Your task to perform on an android device: Add "asus rog" to the cart on amazon.com, then select checkout. Image 0: 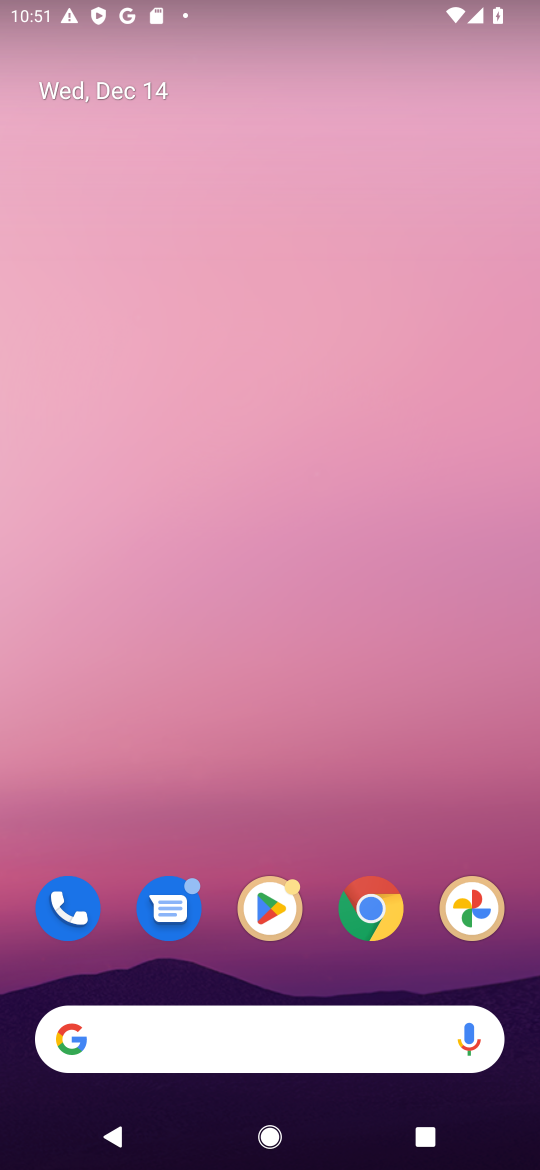
Step 0: click (392, 912)
Your task to perform on an android device: Add "asus rog" to the cart on amazon.com, then select checkout. Image 1: 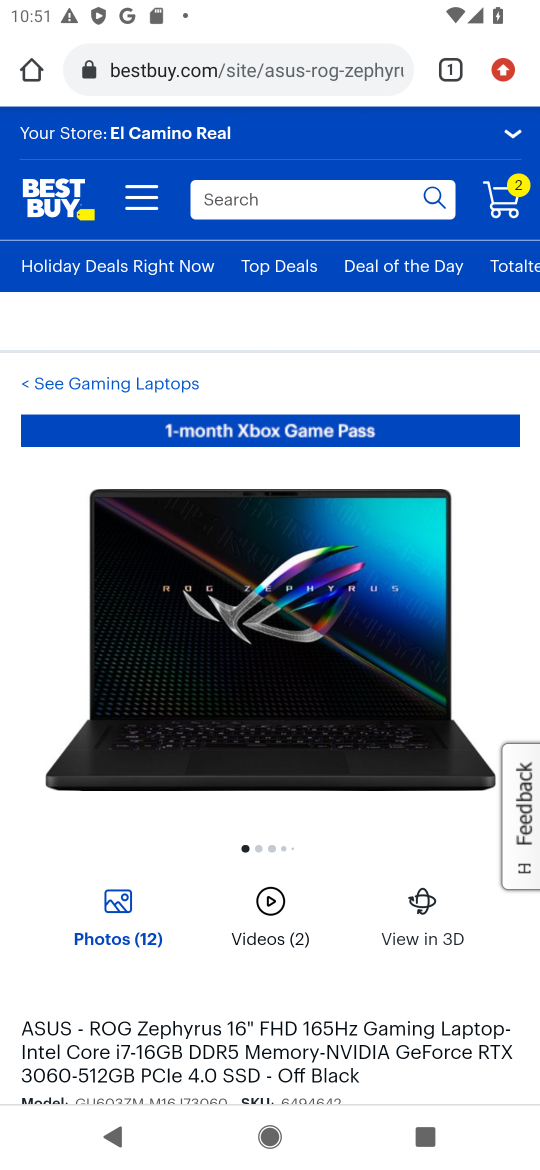
Step 1: click (201, 77)
Your task to perform on an android device: Add "asus rog" to the cart on amazon.com, then select checkout. Image 2: 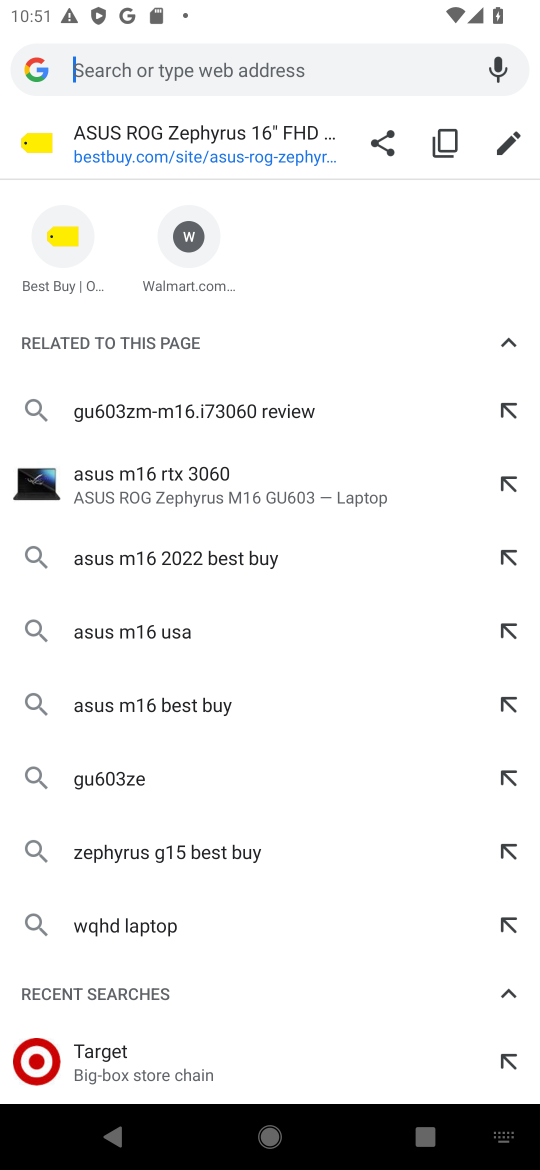
Step 2: type "amazon"
Your task to perform on an android device: Add "asus rog" to the cart on amazon.com, then select checkout. Image 3: 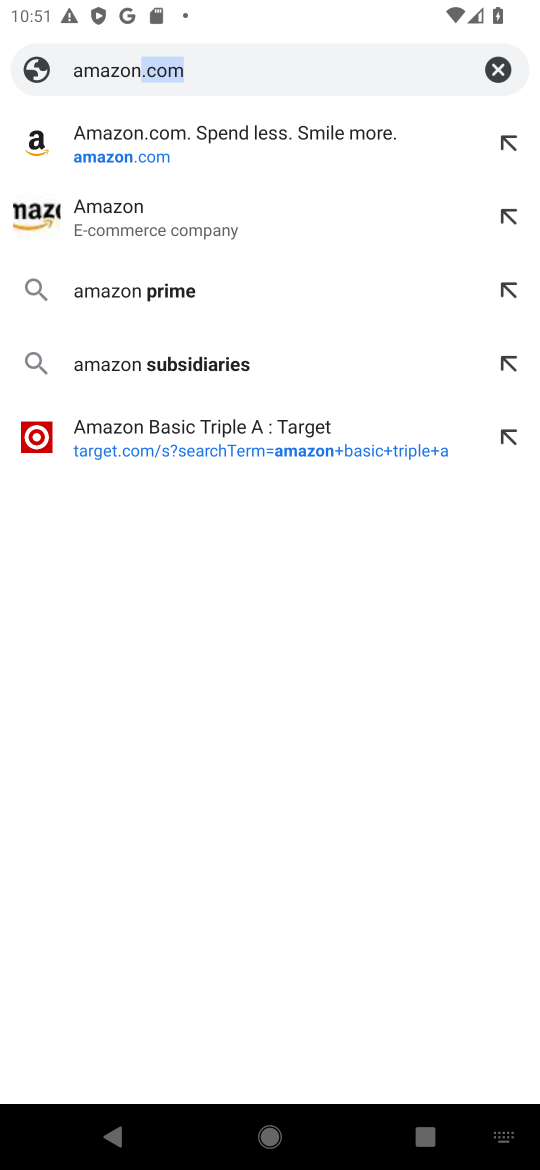
Step 3: click (94, 124)
Your task to perform on an android device: Add "asus rog" to the cart on amazon.com, then select checkout. Image 4: 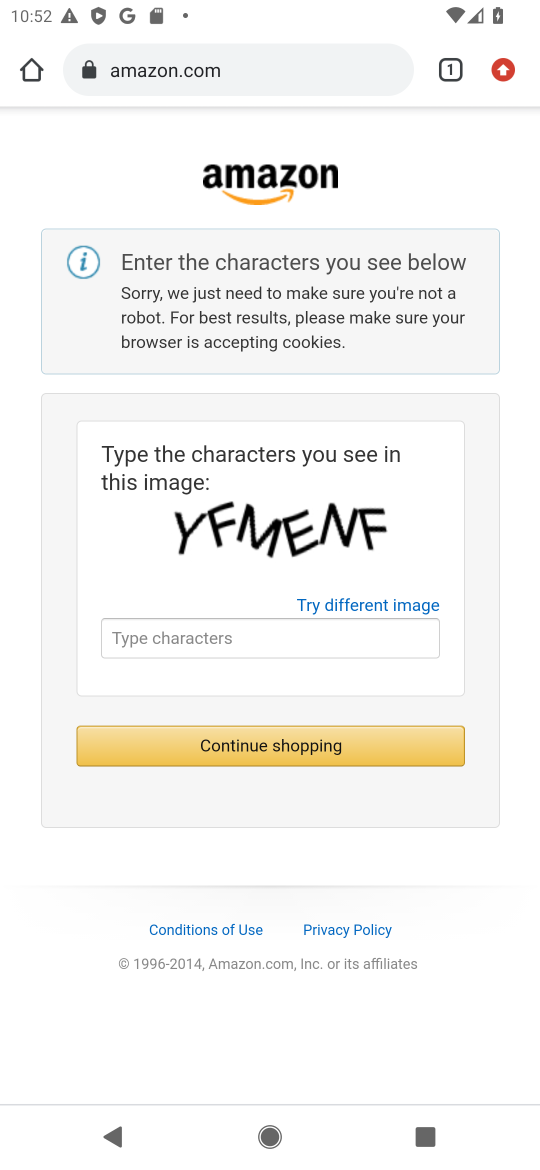
Step 4: click (267, 647)
Your task to perform on an android device: Add "asus rog" to the cart on amazon.com, then select checkout. Image 5: 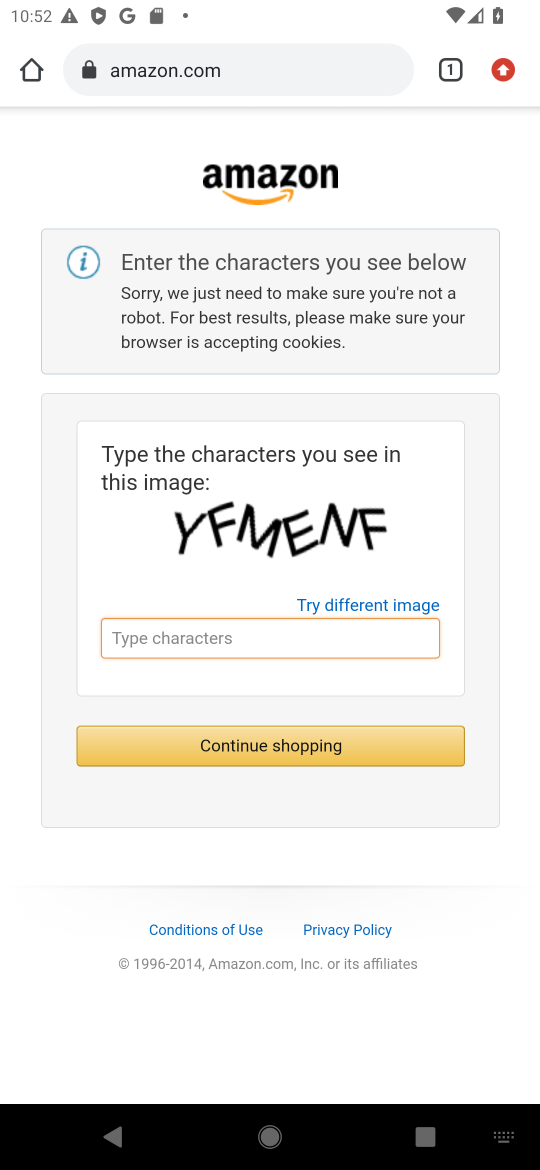
Step 5: type "YFMENF"
Your task to perform on an android device: Add "asus rog" to the cart on amazon.com, then select checkout. Image 6: 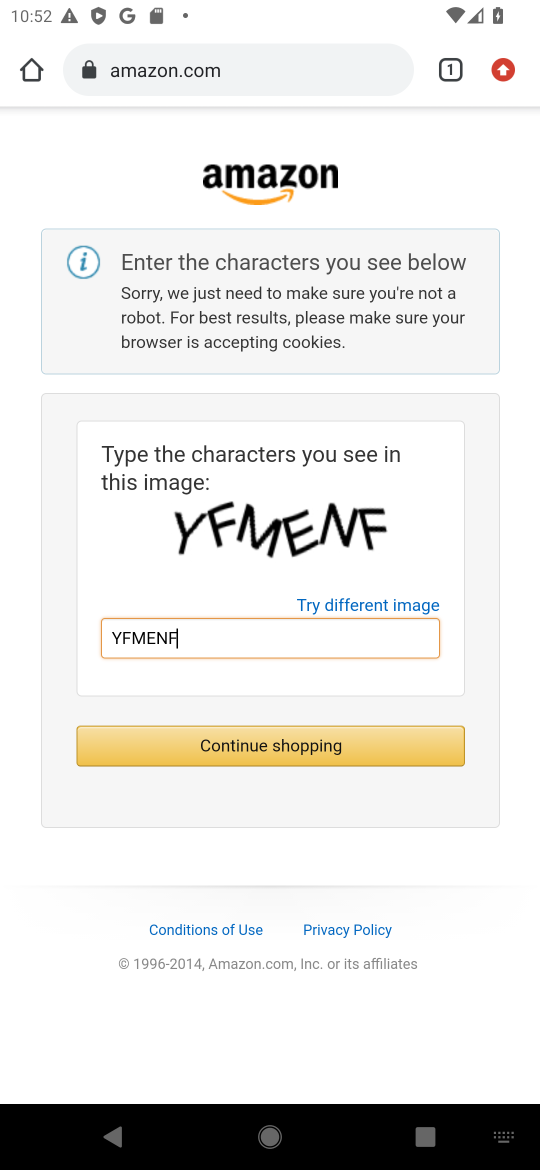
Step 6: click (129, 748)
Your task to perform on an android device: Add "asus rog" to the cart on amazon.com, then select checkout. Image 7: 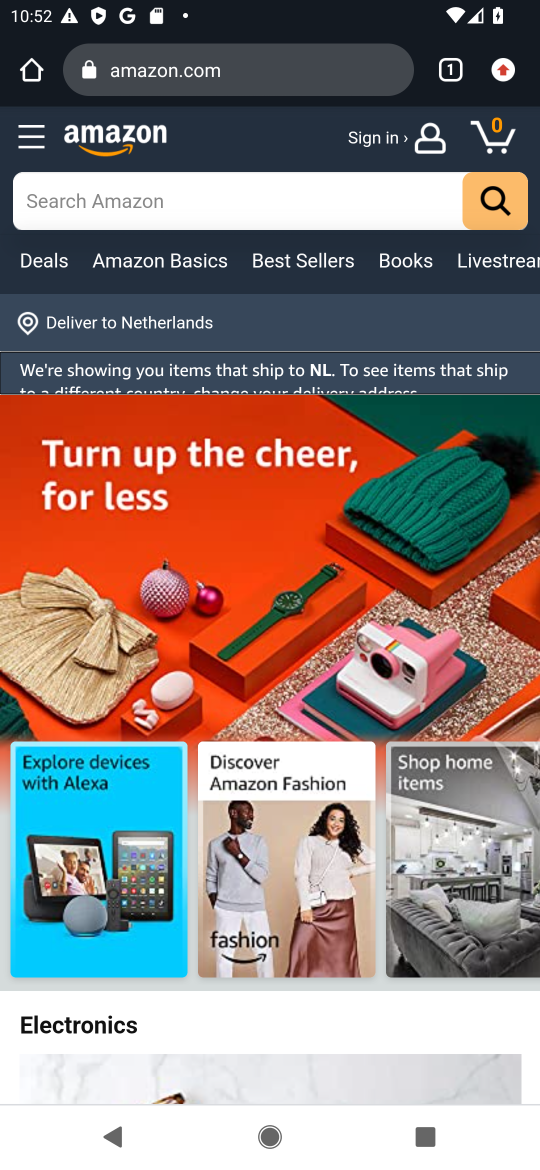
Step 7: click (272, 223)
Your task to perform on an android device: Add "asus rog" to the cart on amazon.com, then select checkout. Image 8: 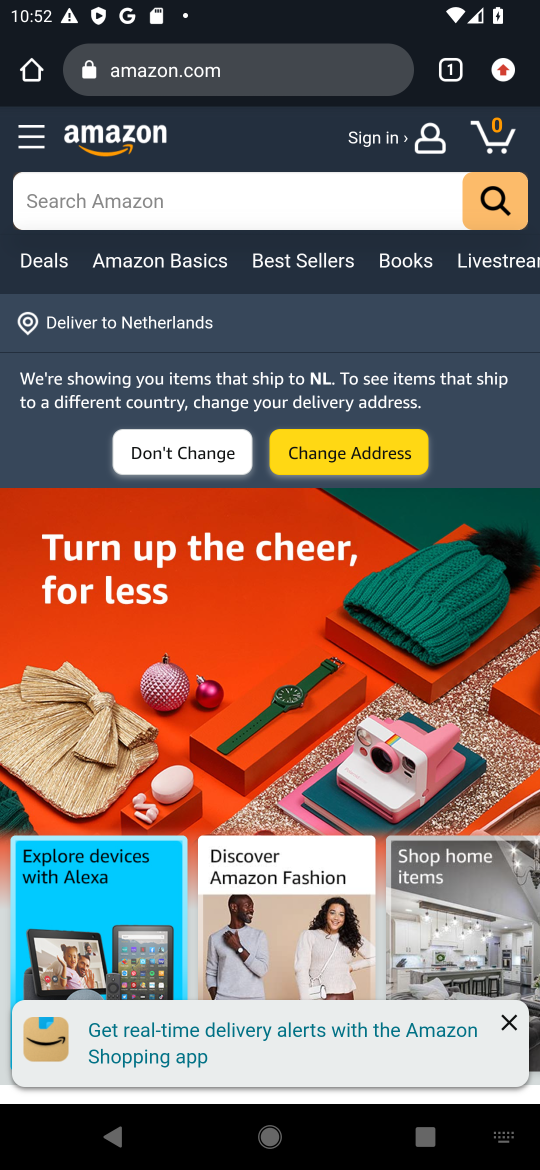
Step 8: type "asus rog"
Your task to perform on an android device: Add "asus rog" to the cart on amazon.com, then select checkout. Image 9: 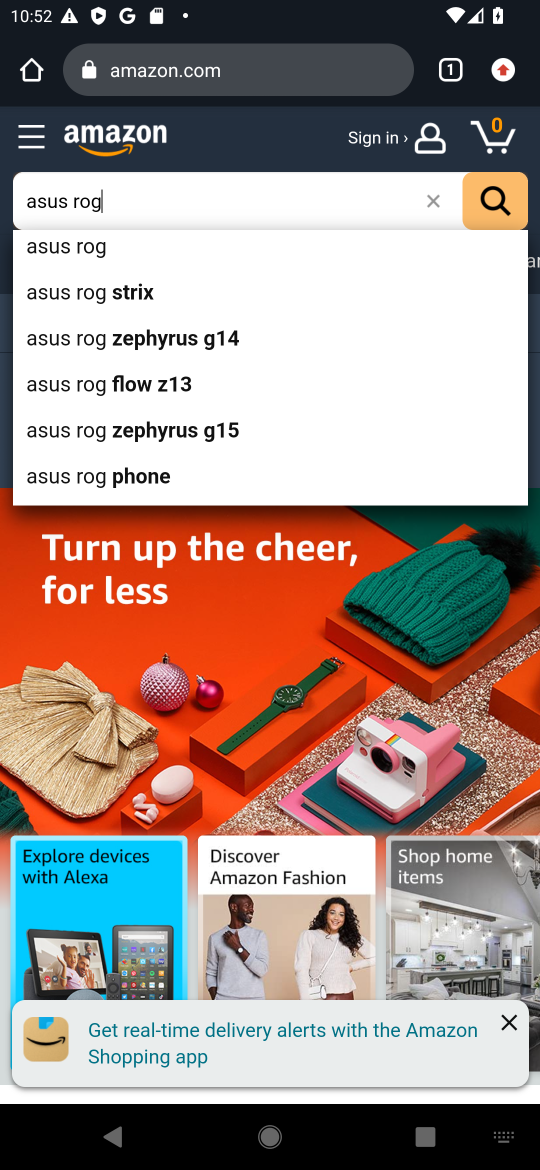
Step 9: click (147, 260)
Your task to perform on an android device: Add "asus rog" to the cart on amazon.com, then select checkout. Image 10: 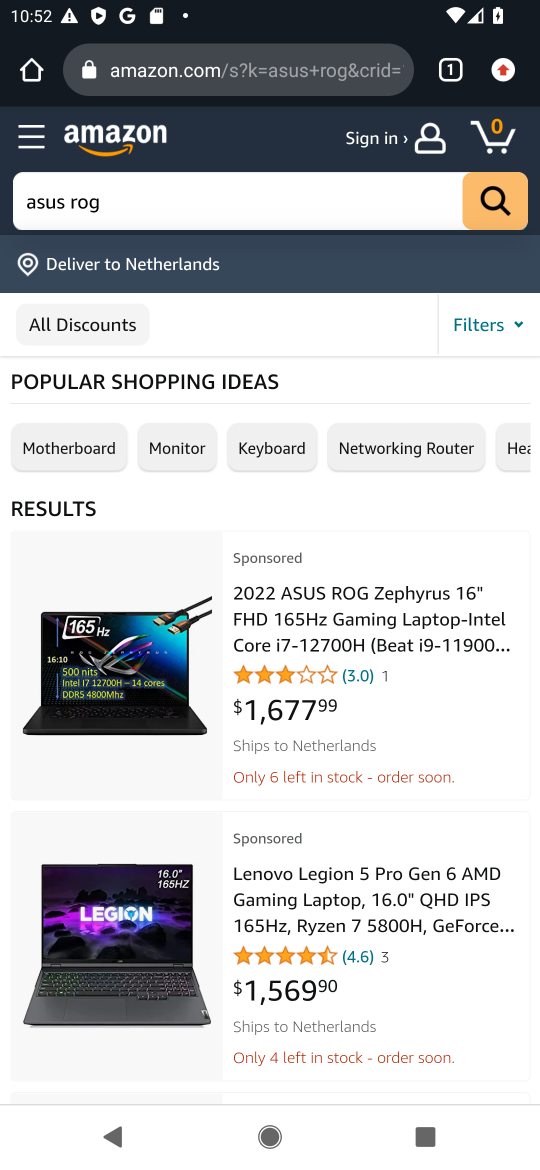
Step 10: click (332, 636)
Your task to perform on an android device: Add "asus rog" to the cart on amazon.com, then select checkout. Image 11: 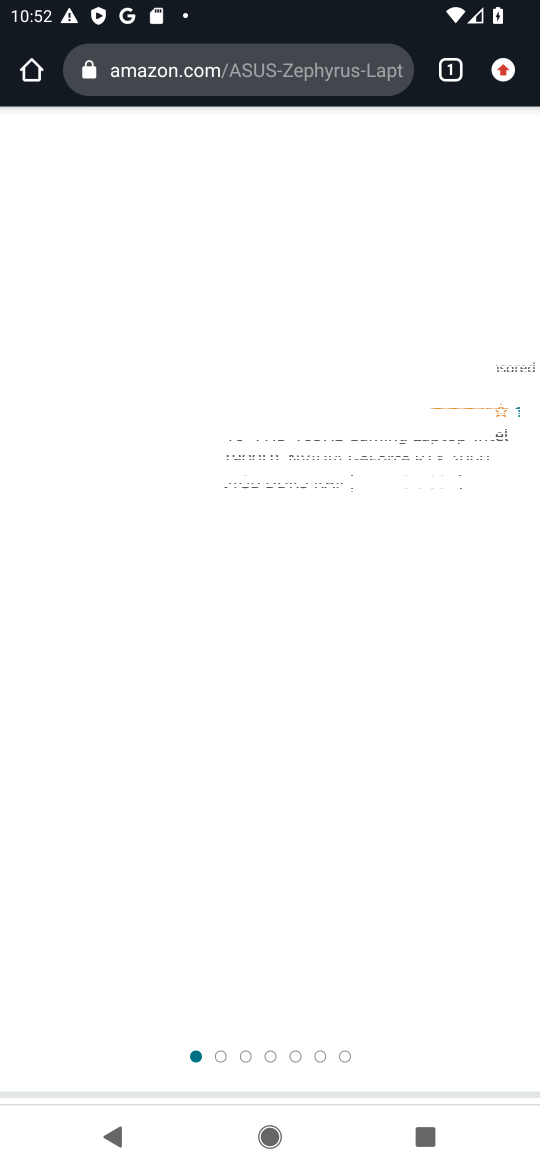
Step 11: drag from (277, 754) to (259, 186)
Your task to perform on an android device: Add "asus rog" to the cart on amazon.com, then select checkout. Image 12: 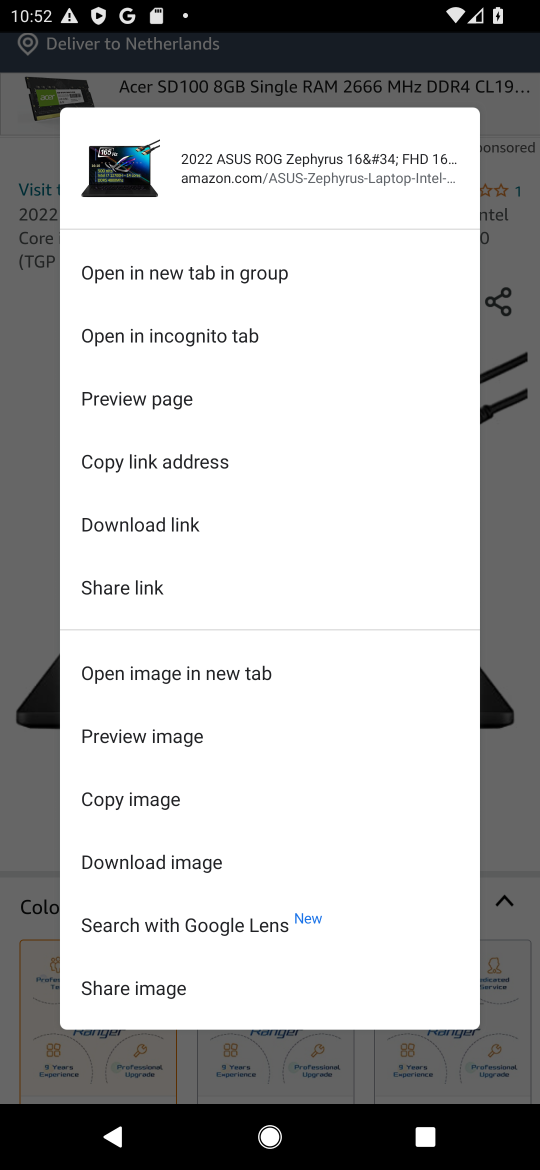
Step 12: click (493, 577)
Your task to perform on an android device: Add "asus rog" to the cart on amazon.com, then select checkout. Image 13: 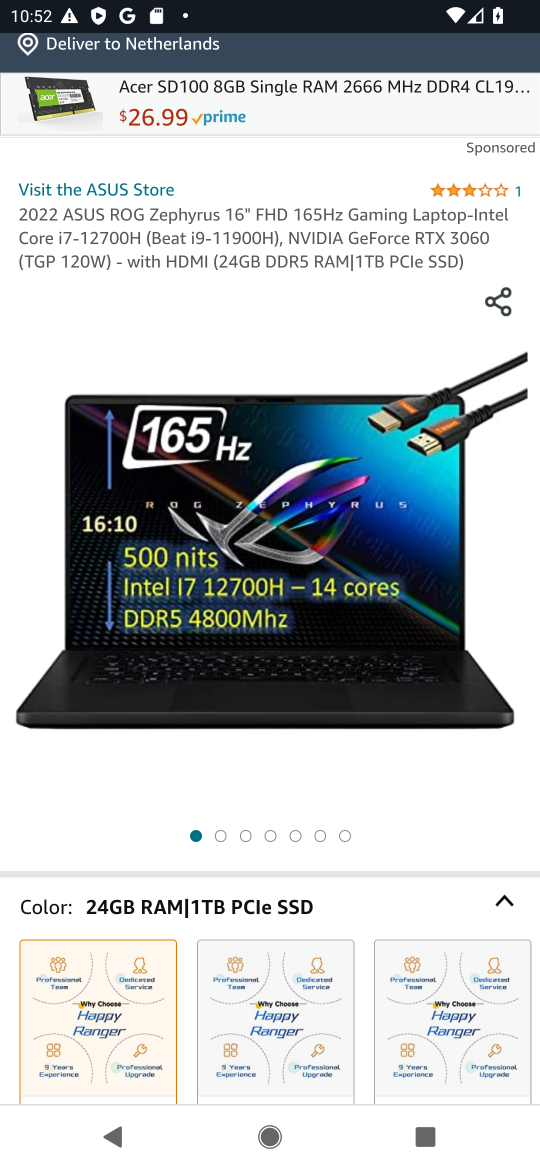
Step 13: drag from (313, 844) to (322, 299)
Your task to perform on an android device: Add "asus rog" to the cart on amazon.com, then select checkout. Image 14: 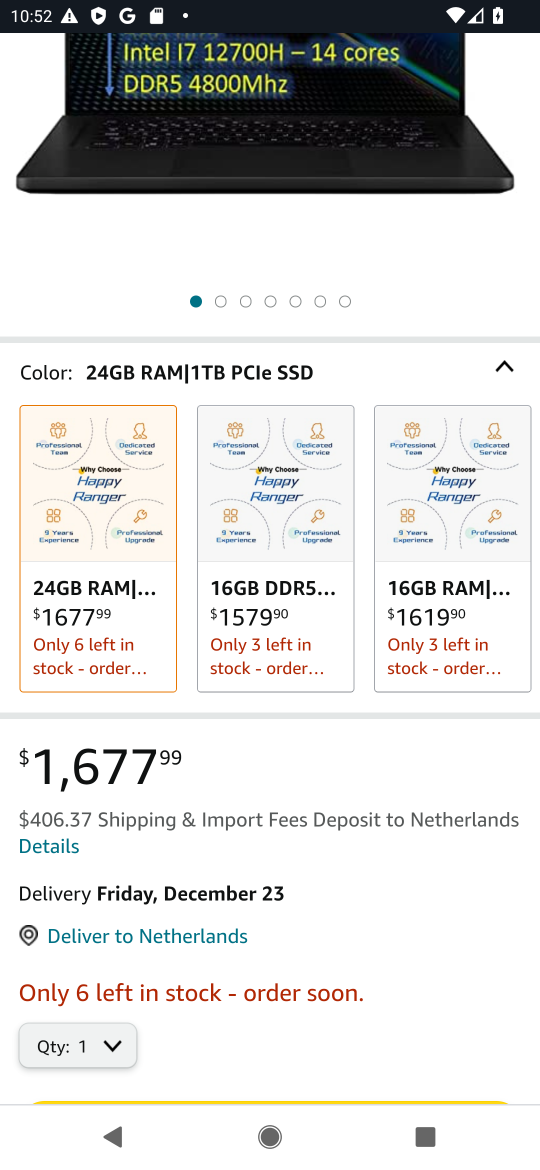
Step 14: drag from (344, 1027) to (336, 544)
Your task to perform on an android device: Add "asus rog" to the cart on amazon.com, then select checkout. Image 15: 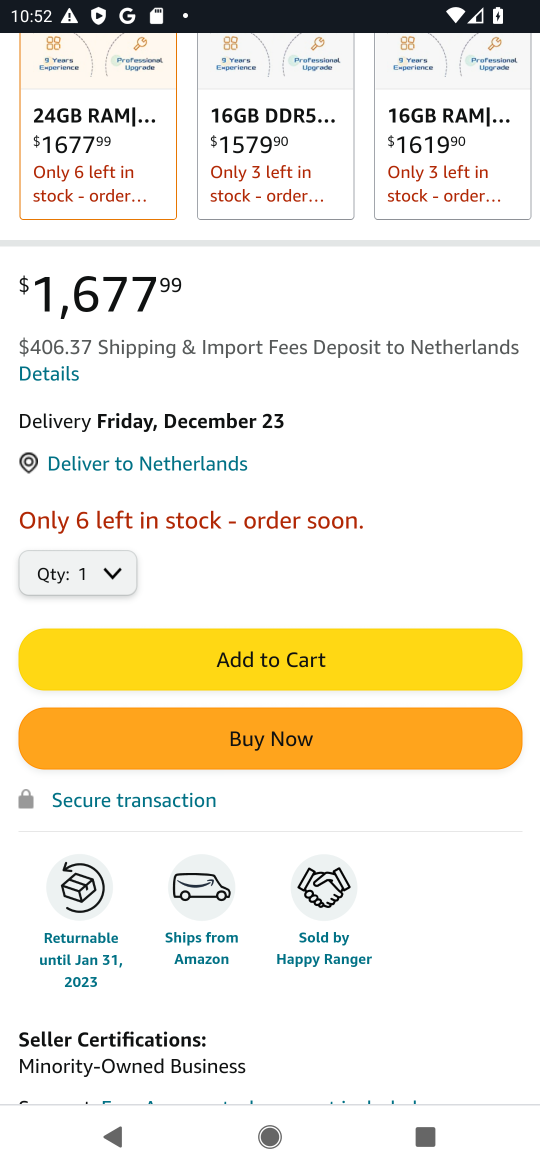
Step 15: click (310, 716)
Your task to perform on an android device: Add "asus rog" to the cart on amazon.com, then select checkout. Image 16: 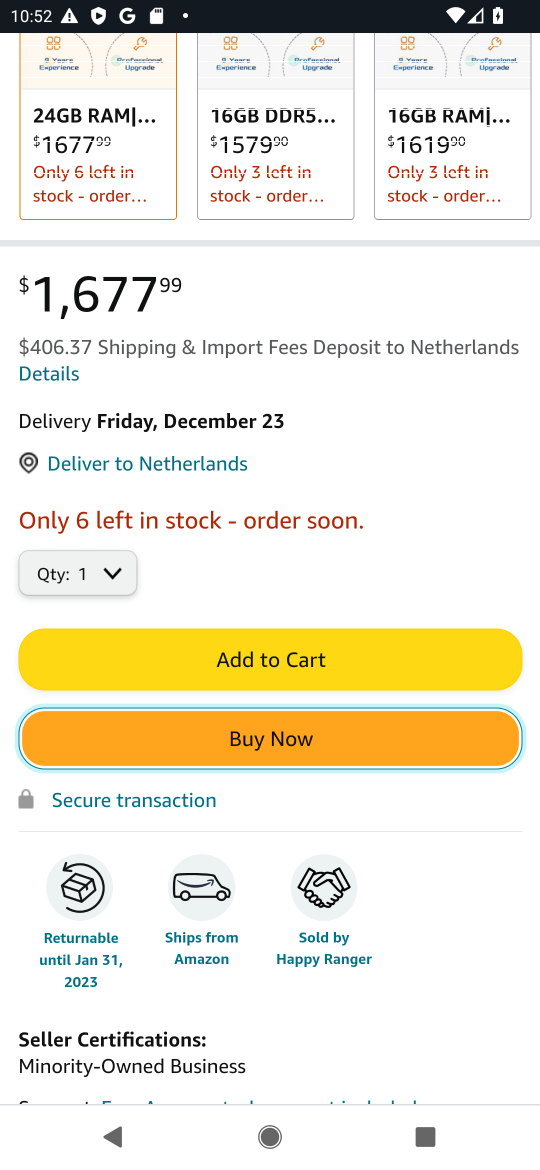
Step 16: click (336, 671)
Your task to perform on an android device: Add "asus rog" to the cart on amazon.com, then select checkout. Image 17: 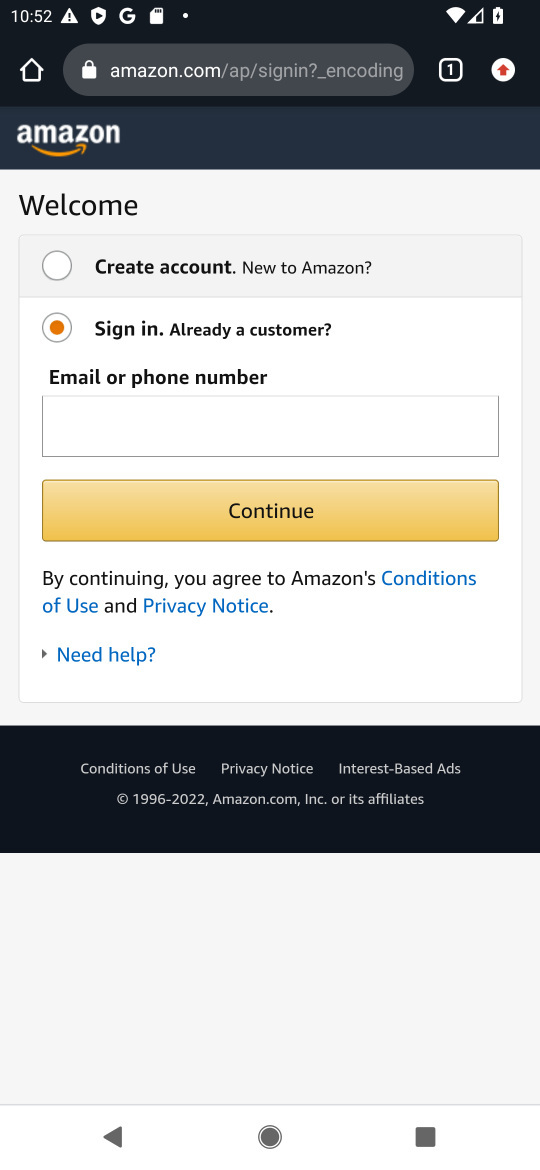
Step 17: task complete